Your task to perform on an android device: What's the weather? Image 0: 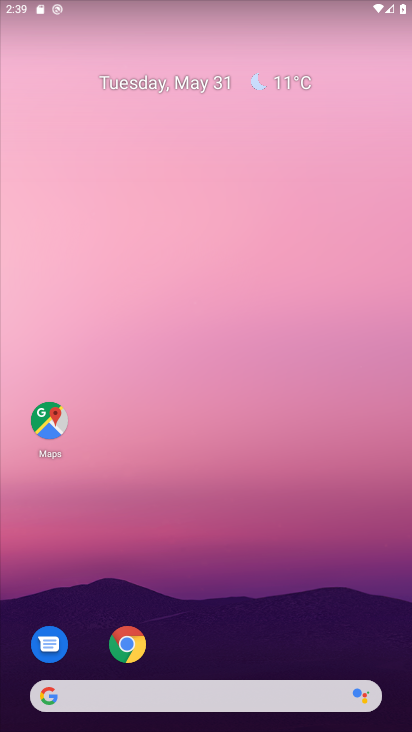
Step 0: click (168, 703)
Your task to perform on an android device: What's the weather? Image 1: 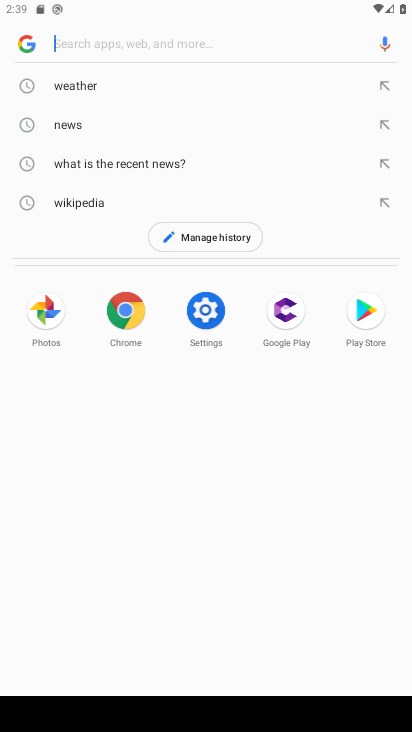
Step 1: type "what's the weather"
Your task to perform on an android device: What's the weather? Image 2: 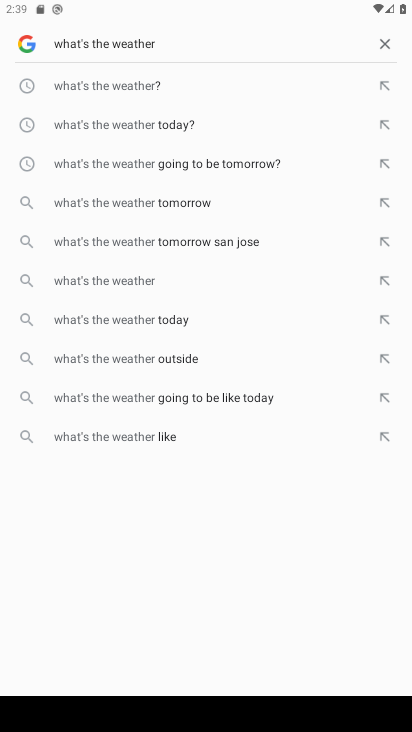
Step 2: click (105, 82)
Your task to perform on an android device: What's the weather? Image 3: 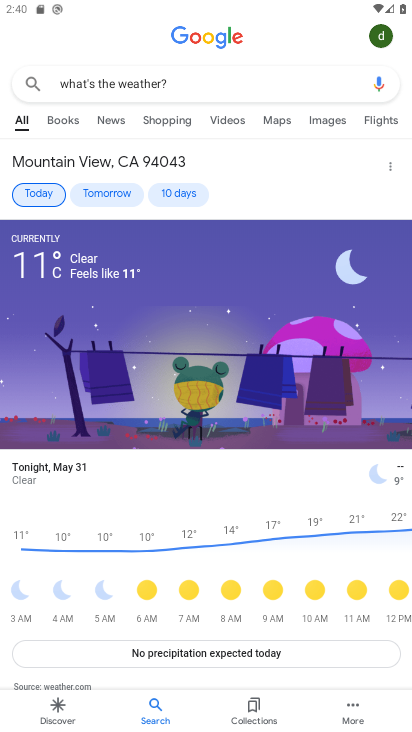
Step 3: task complete